Your task to perform on an android device: Open Google Image 0: 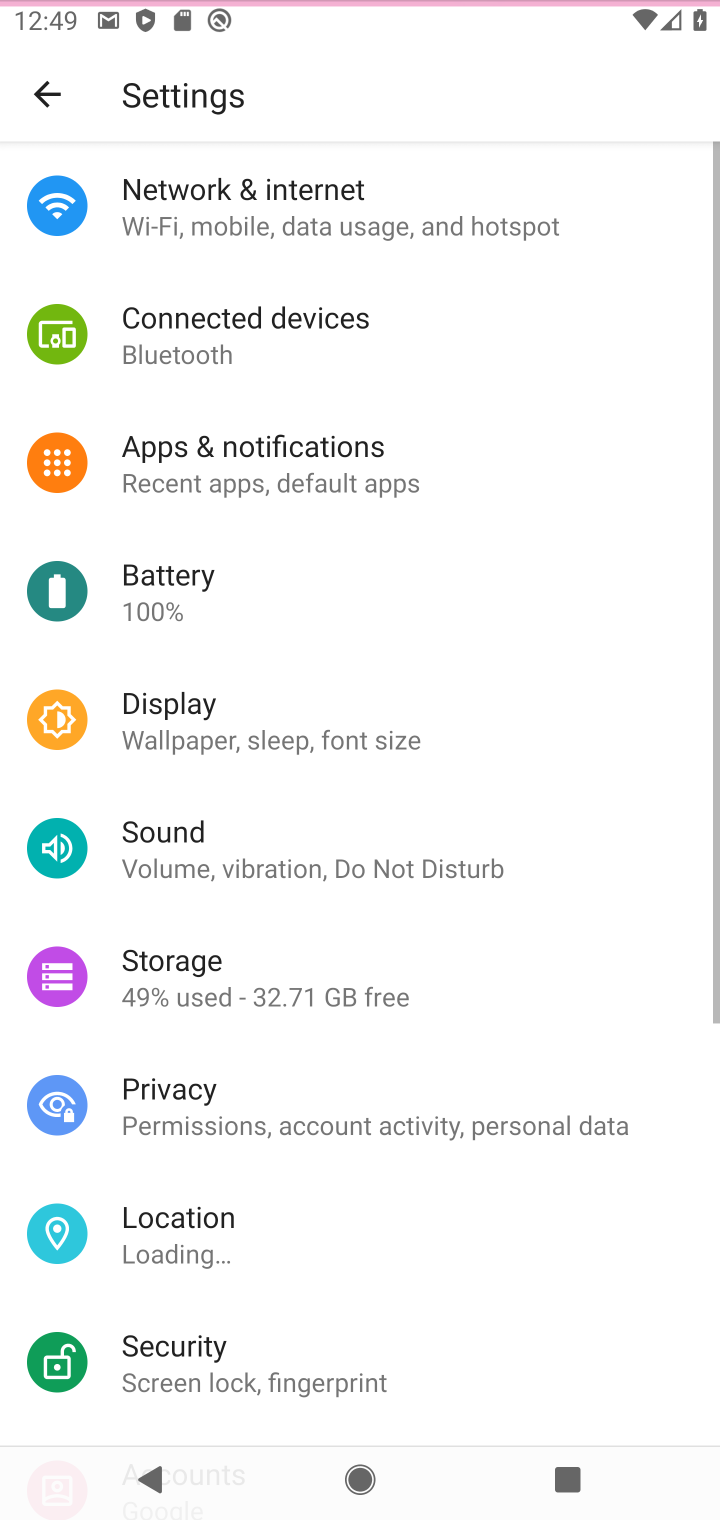
Step 0: press home button
Your task to perform on an android device: Open Google Image 1: 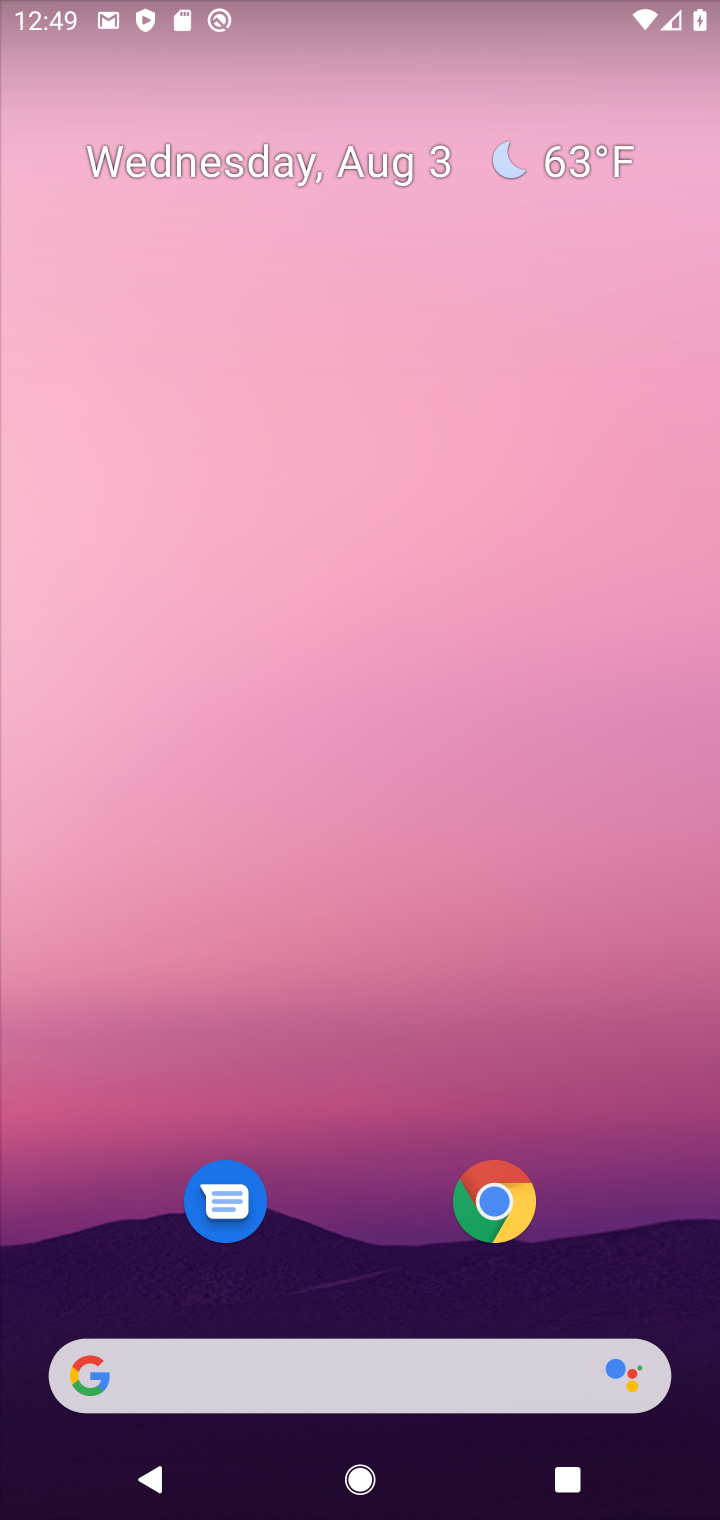
Step 1: drag from (521, 865) to (702, 280)
Your task to perform on an android device: Open Google Image 2: 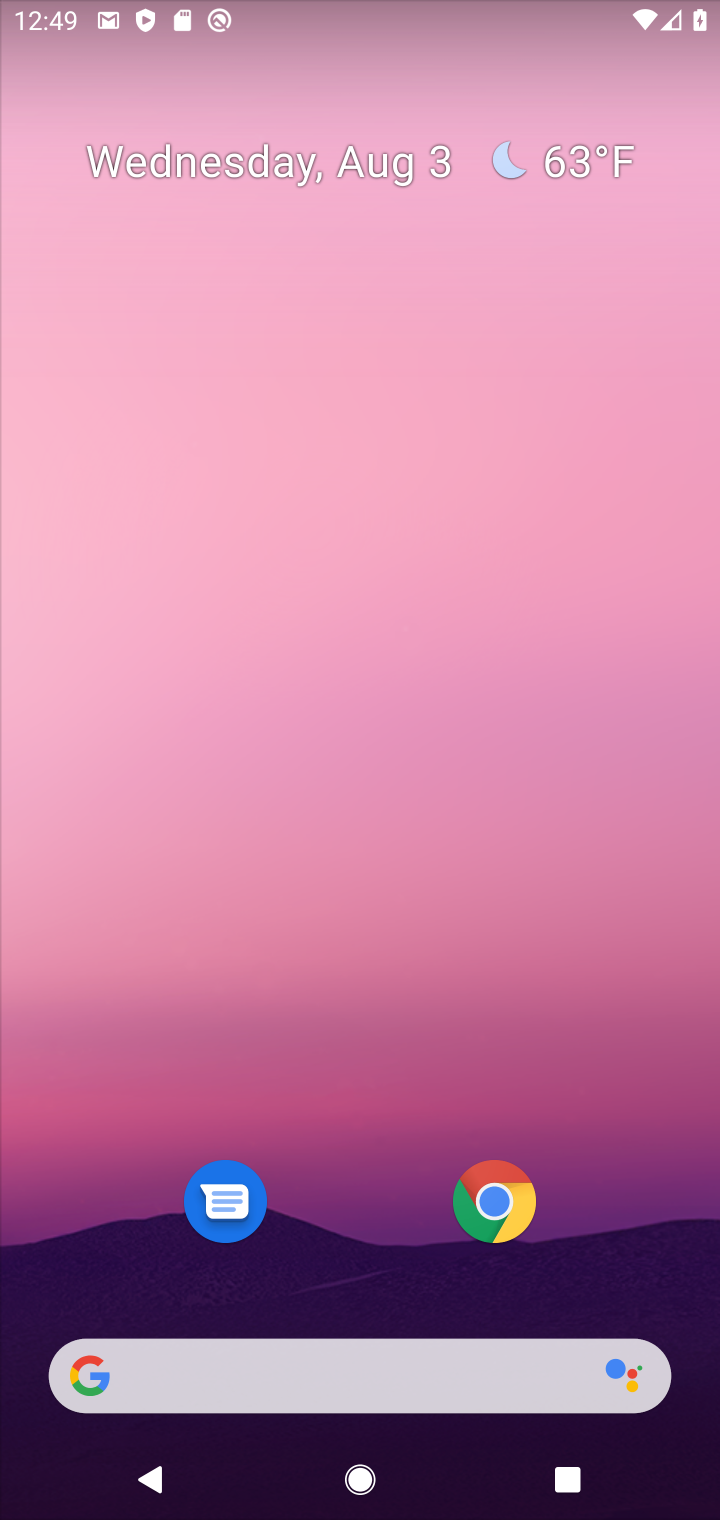
Step 2: drag from (269, 1351) to (574, 312)
Your task to perform on an android device: Open Google Image 3: 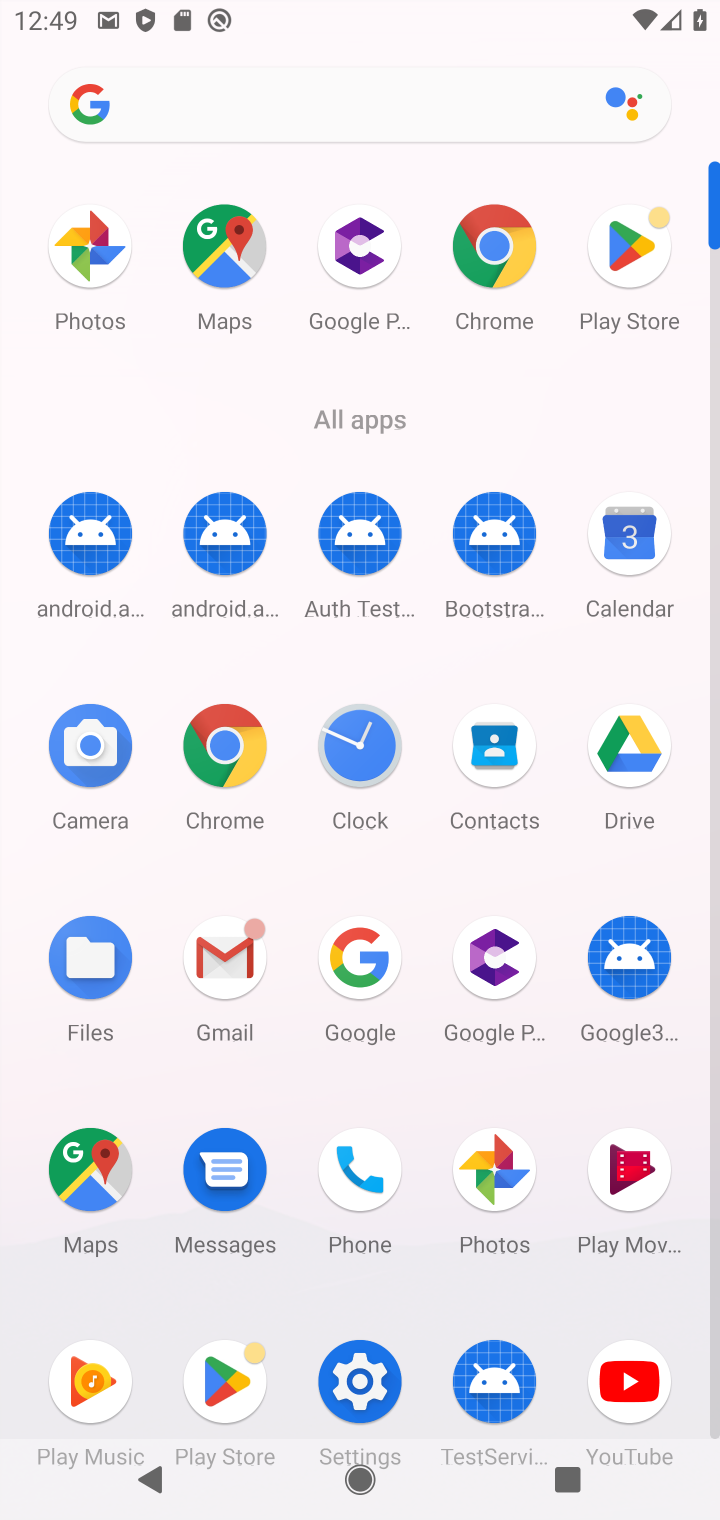
Step 3: click (355, 971)
Your task to perform on an android device: Open Google Image 4: 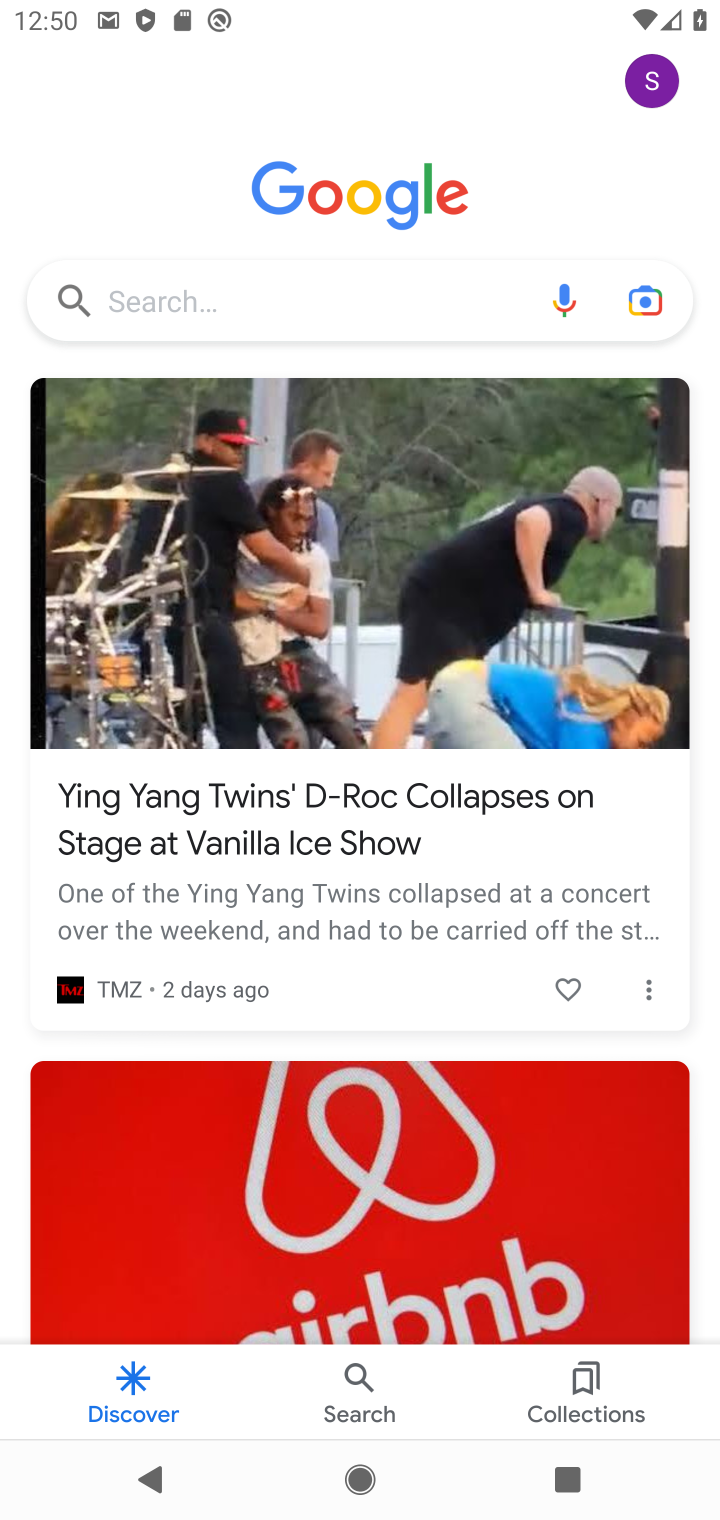
Step 4: task complete